Your task to perform on an android device: Search for pizza restaurants on Maps Image 0: 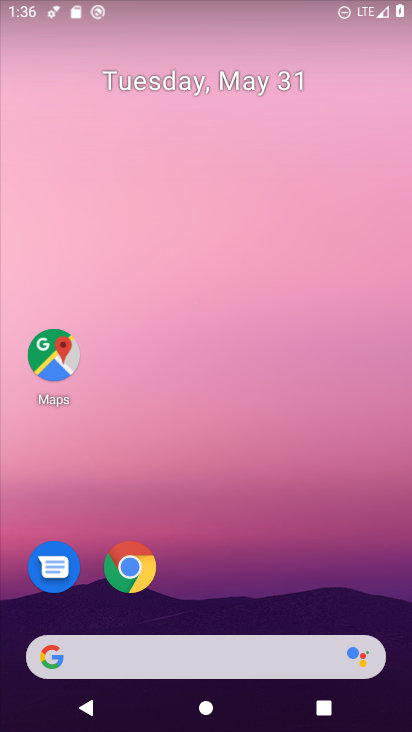
Step 0: click (54, 342)
Your task to perform on an android device: Search for pizza restaurants on Maps Image 1: 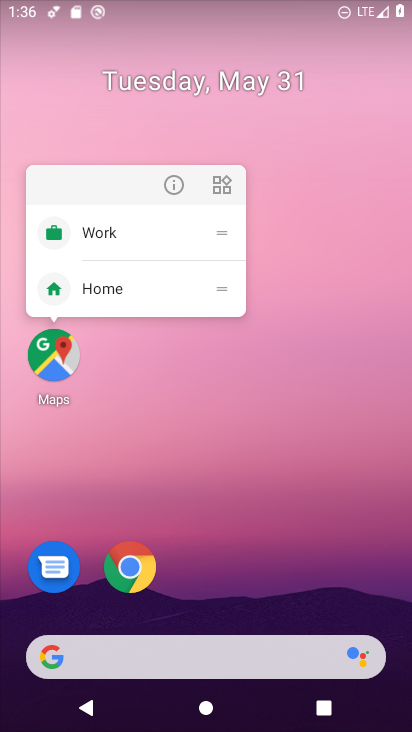
Step 1: click (60, 344)
Your task to perform on an android device: Search for pizza restaurants on Maps Image 2: 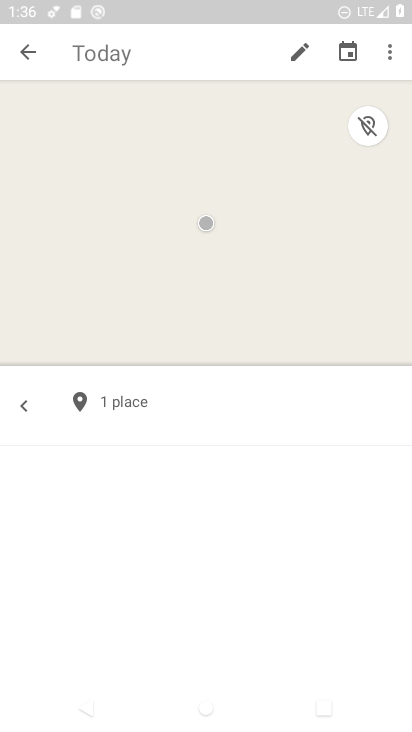
Step 2: click (19, 43)
Your task to perform on an android device: Search for pizza restaurants on Maps Image 3: 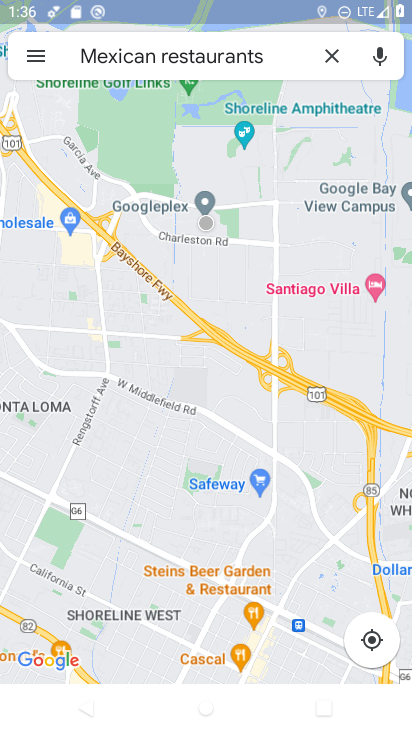
Step 3: click (127, 56)
Your task to perform on an android device: Search for pizza restaurants on Maps Image 4: 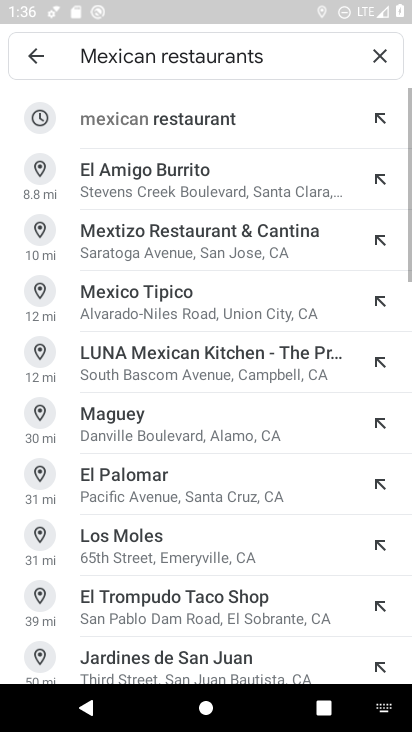
Step 4: click (377, 55)
Your task to perform on an android device: Search for pizza restaurants on Maps Image 5: 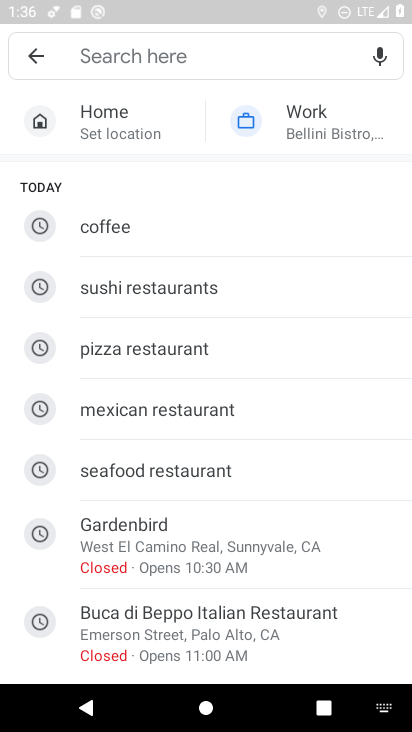
Step 5: click (150, 361)
Your task to perform on an android device: Search for pizza restaurants on Maps Image 6: 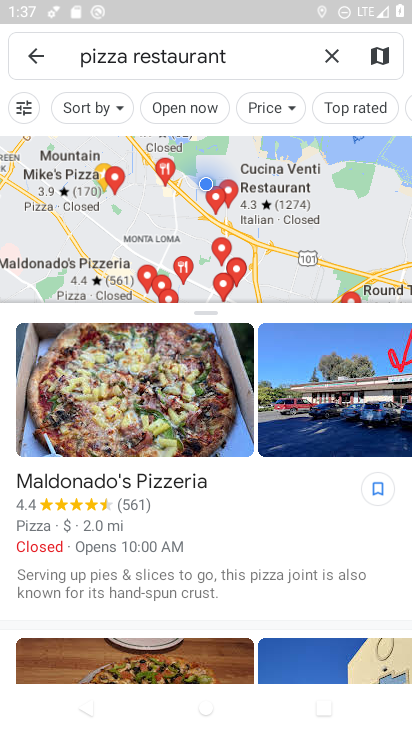
Step 6: task complete